Your task to perform on an android device: Open privacy settings Image 0: 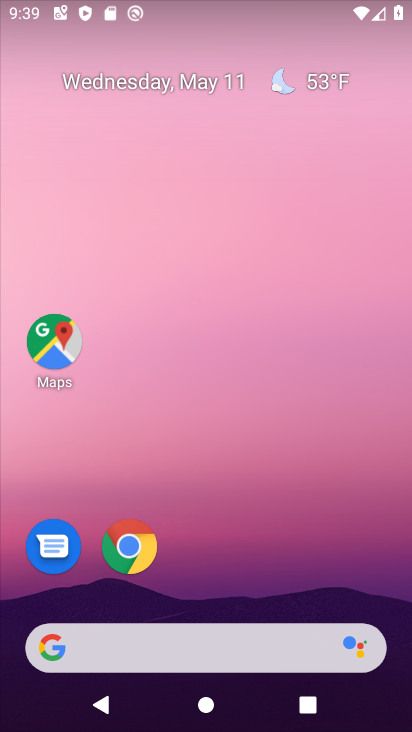
Step 0: drag from (371, 560) to (287, 114)
Your task to perform on an android device: Open privacy settings Image 1: 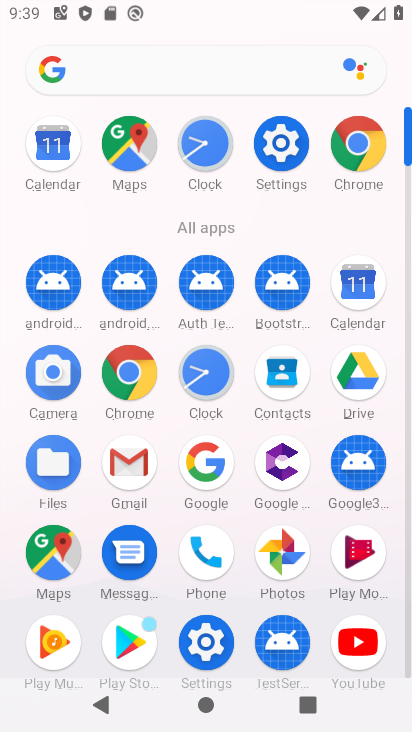
Step 1: click (189, 658)
Your task to perform on an android device: Open privacy settings Image 2: 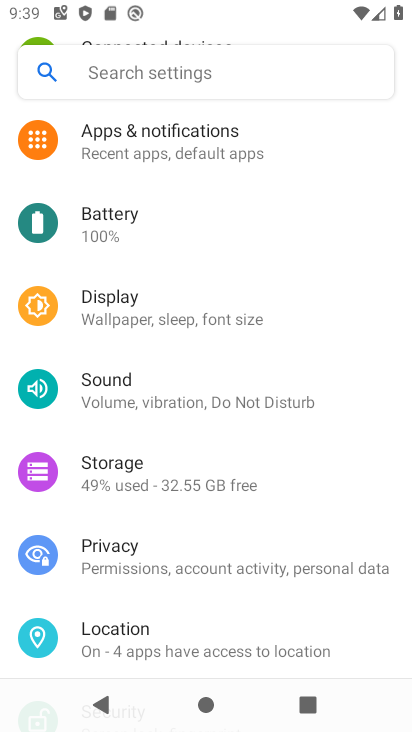
Step 2: click (175, 563)
Your task to perform on an android device: Open privacy settings Image 3: 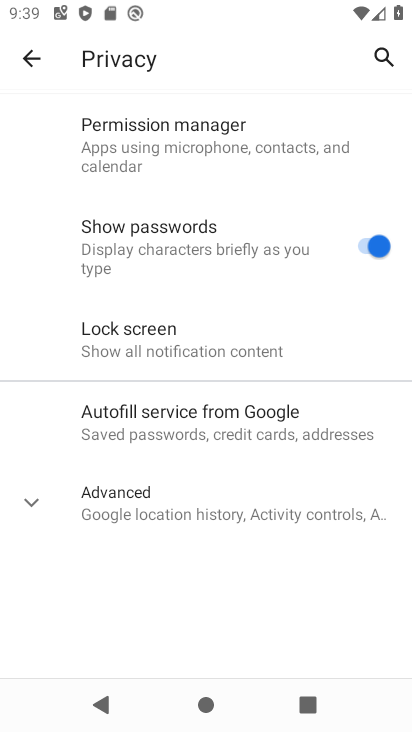
Step 3: task complete